Your task to perform on an android device: Open eBay Image 0: 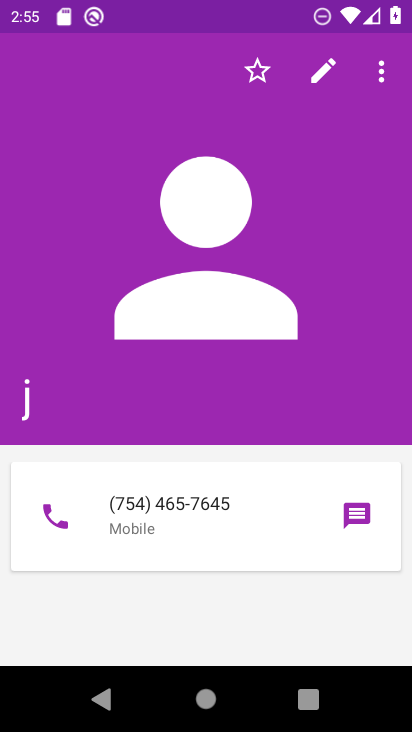
Step 0: press home button
Your task to perform on an android device: Open eBay Image 1: 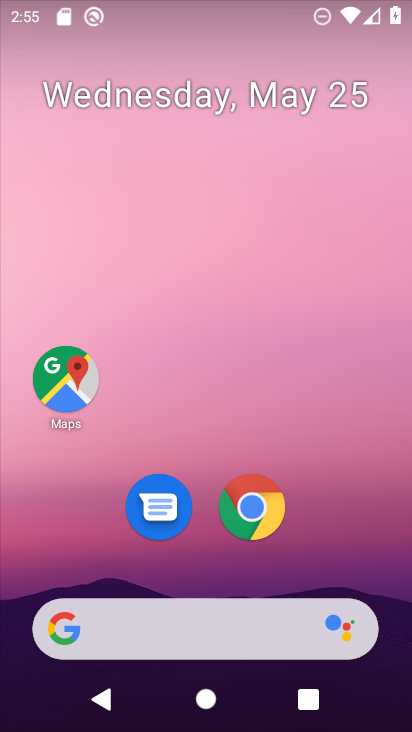
Step 1: click (266, 510)
Your task to perform on an android device: Open eBay Image 2: 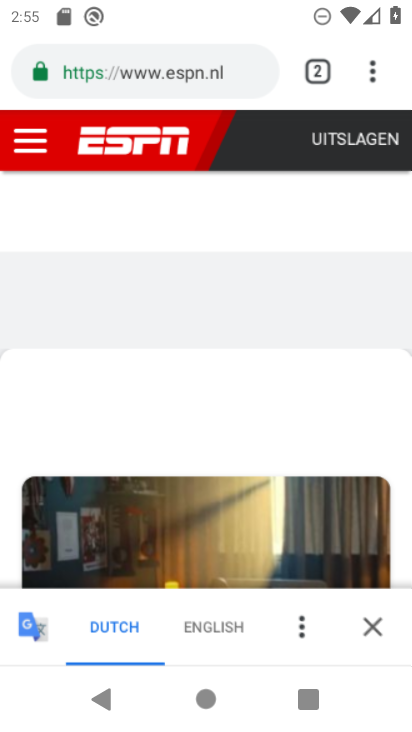
Step 2: click (205, 76)
Your task to perform on an android device: Open eBay Image 3: 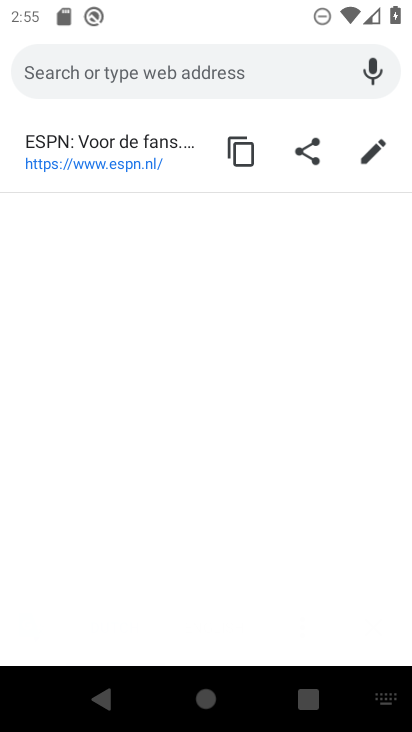
Step 3: type "ebay"
Your task to perform on an android device: Open eBay Image 4: 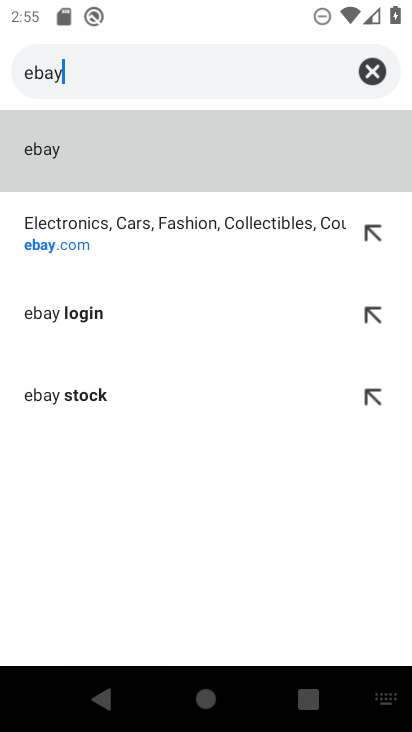
Step 4: click (238, 238)
Your task to perform on an android device: Open eBay Image 5: 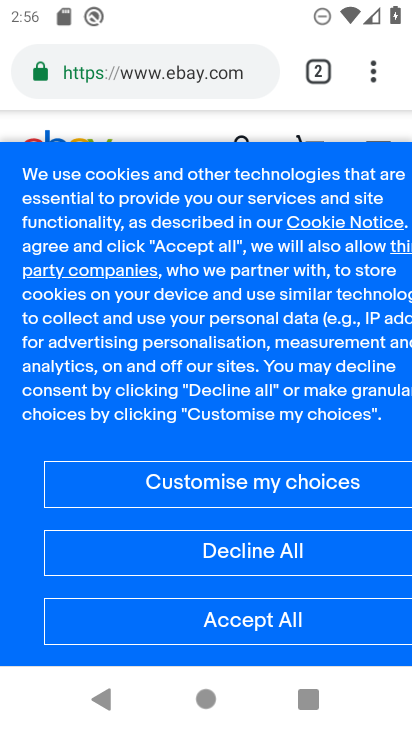
Step 5: task complete